Your task to perform on an android device: Go to wifi settings Image 0: 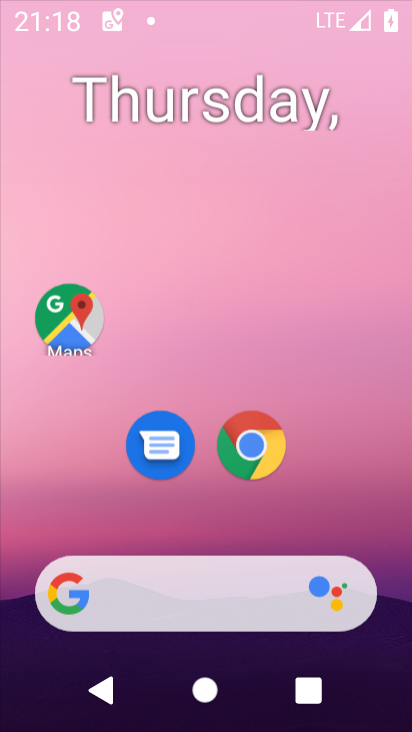
Step 0: drag from (220, 515) to (314, 37)
Your task to perform on an android device: Go to wifi settings Image 1: 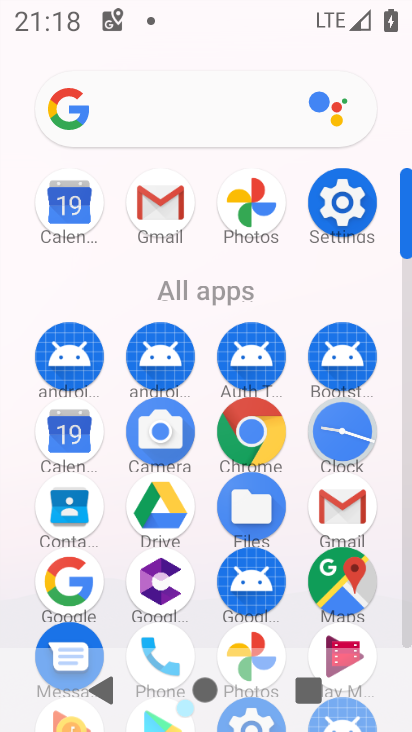
Step 1: click (342, 190)
Your task to perform on an android device: Go to wifi settings Image 2: 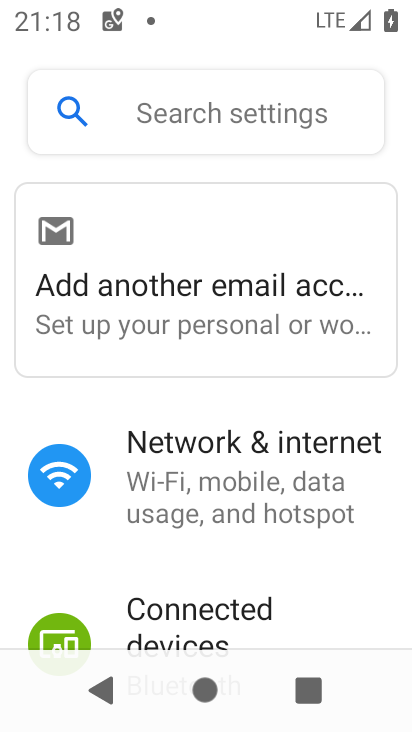
Step 2: click (204, 469)
Your task to perform on an android device: Go to wifi settings Image 3: 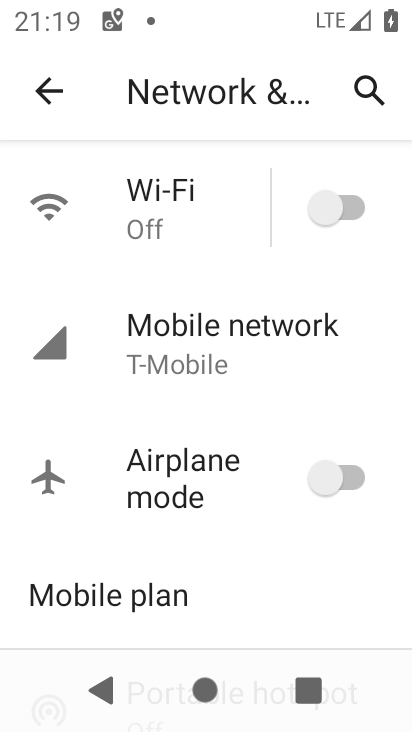
Step 3: click (183, 205)
Your task to perform on an android device: Go to wifi settings Image 4: 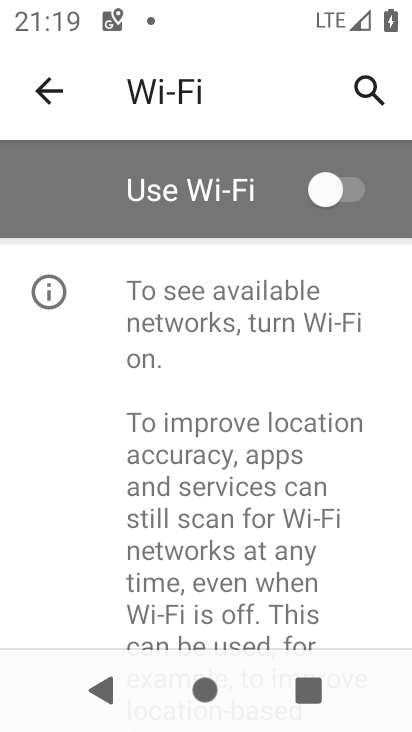
Step 4: task complete